Your task to perform on an android device: change the clock display to analog Image 0: 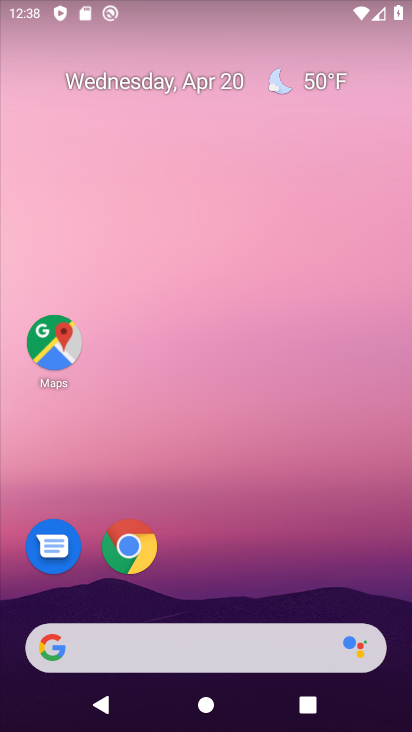
Step 0: drag from (259, 536) to (318, 33)
Your task to perform on an android device: change the clock display to analog Image 1: 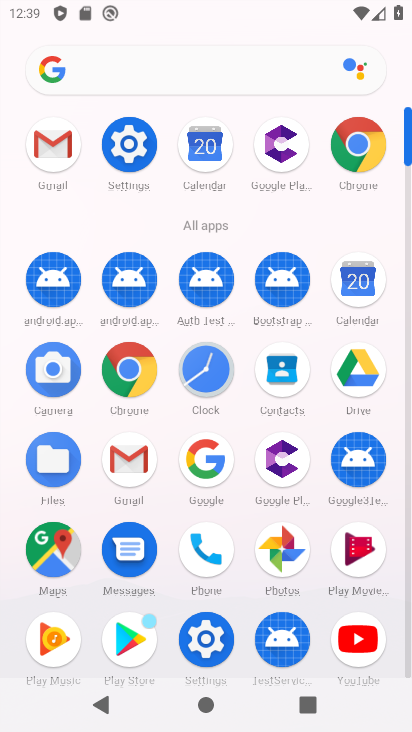
Step 1: click (219, 362)
Your task to perform on an android device: change the clock display to analog Image 2: 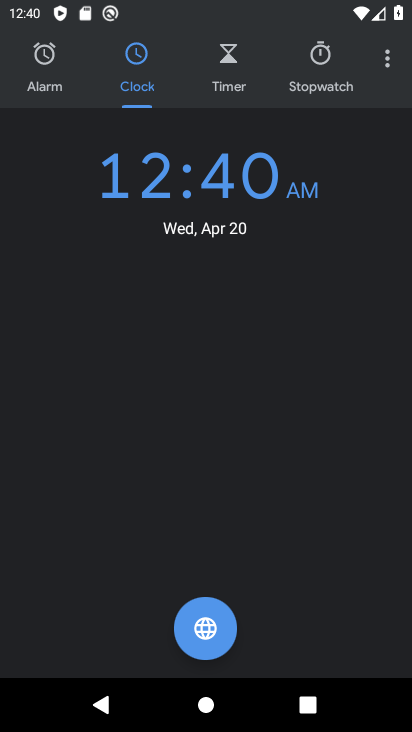
Step 2: click (376, 45)
Your task to perform on an android device: change the clock display to analog Image 3: 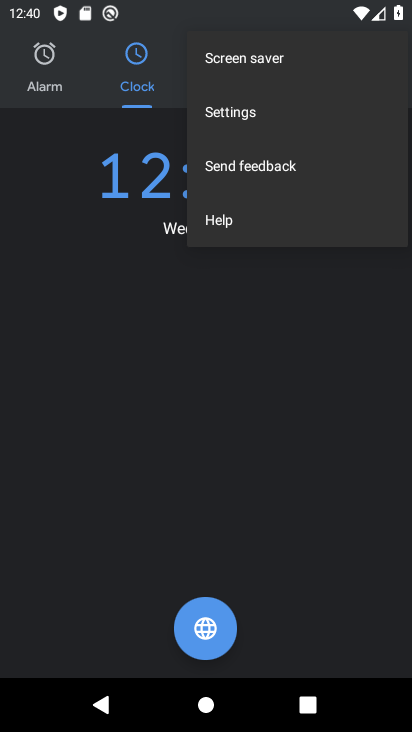
Step 3: click (261, 119)
Your task to perform on an android device: change the clock display to analog Image 4: 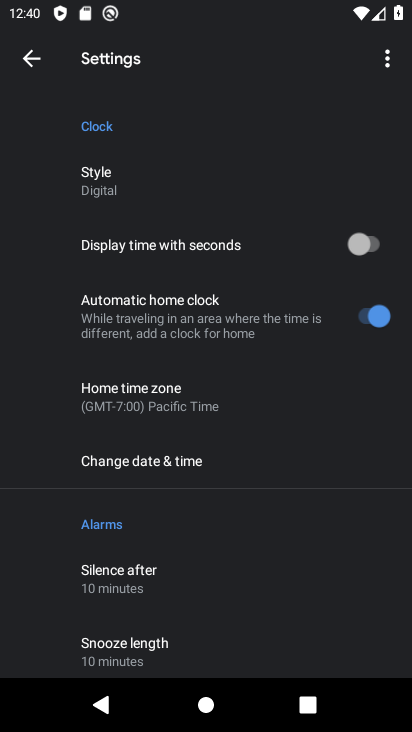
Step 4: click (141, 188)
Your task to perform on an android device: change the clock display to analog Image 5: 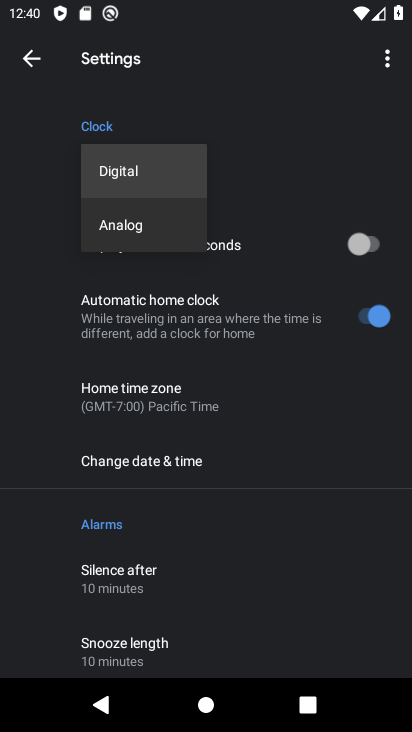
Step 5: click (125, 230)
Your task to perform on an android device: change the clock display to analog Image 6: 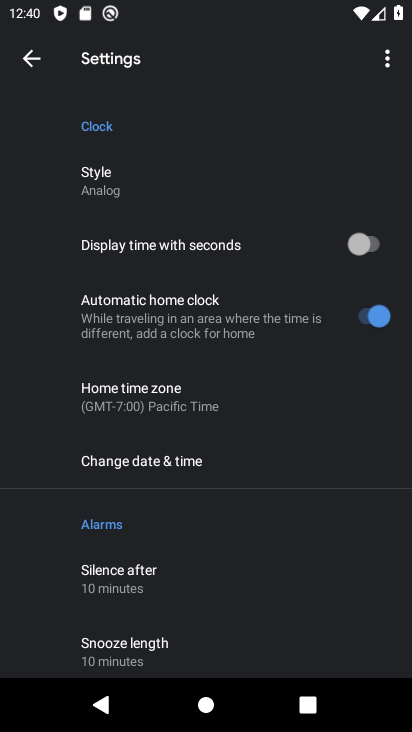
Step 6: task complete